Your task to perform on an android device: When is my next meeting? Image 0: 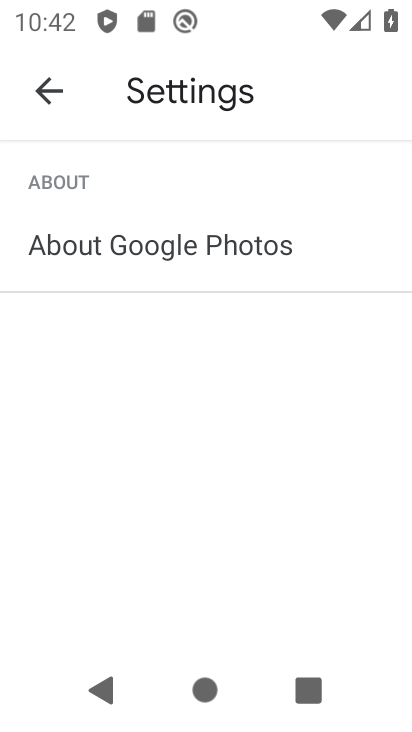
Step 0: press home button
Your task to perform on an android device: When is my next meeting? Image 1: 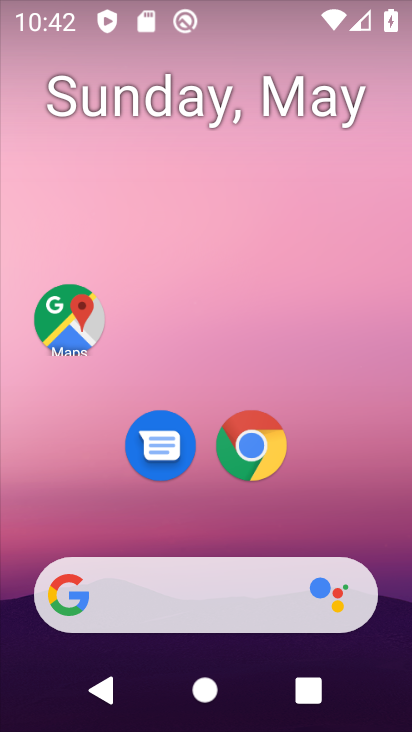
Step 1: drag from (167, 517) to (228, 90)
Your task to perform on an android device: When is my next meeting? Image 2: 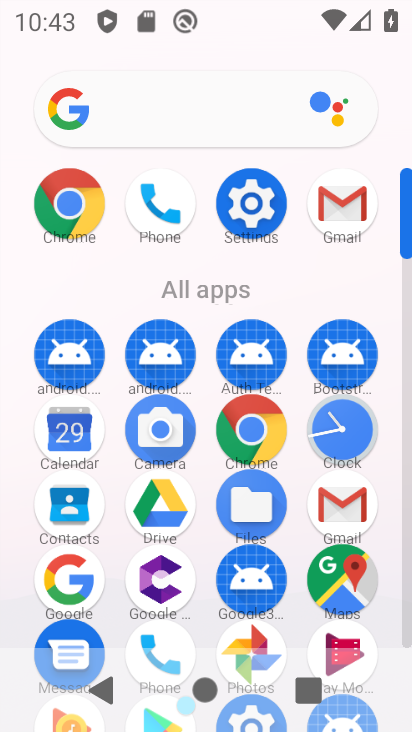
Step 2: click (81, 447)
Your task to perform on an android device: When is my next meeting? Image 3: 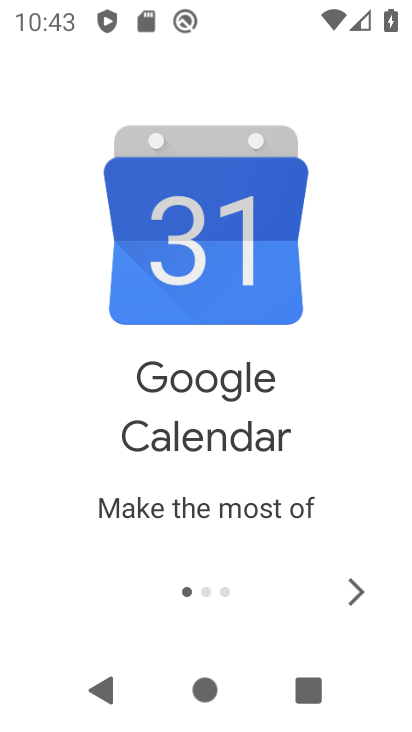
Step 3: click (356, 591)
Your task to perform on an android device: When is my next meeting? Image 4: 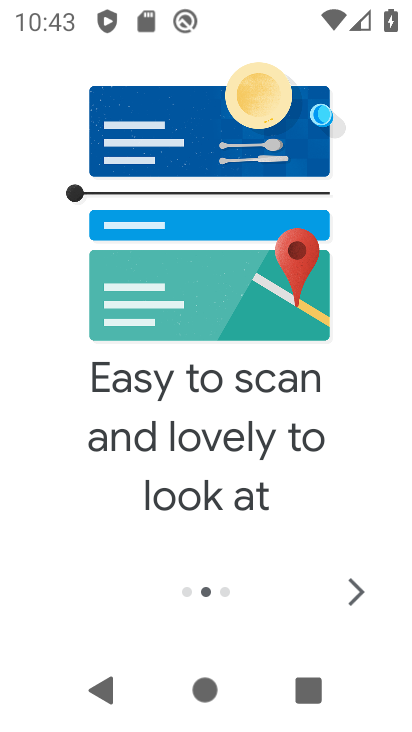
Step 4: click (354, 592)
Your task to perform on an android device: When is my next meeting? Image 5: 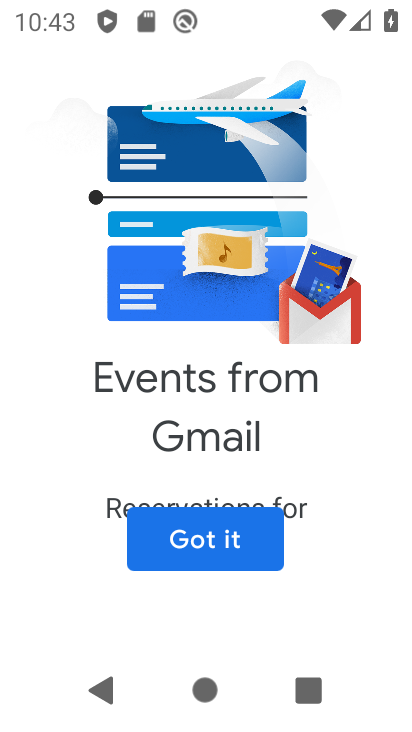
Step 5: click (241, 543)
Your task to perform on an android device: When is my next meeting? Image 6: 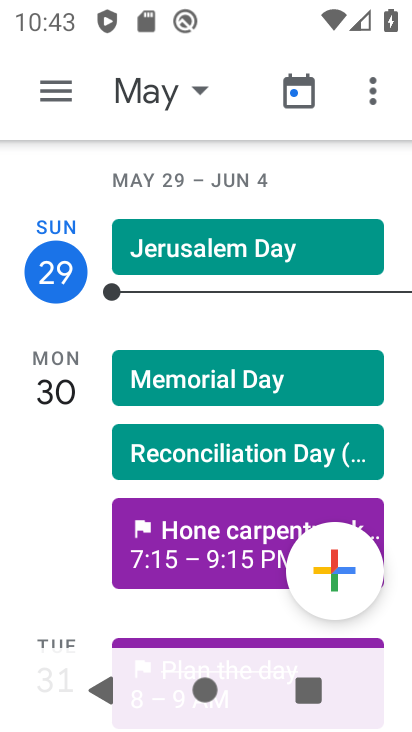
Step 6: drag from (213, 600) to (293, 62)
Your task to perform on an android device: When is my next meeting? Image 7: 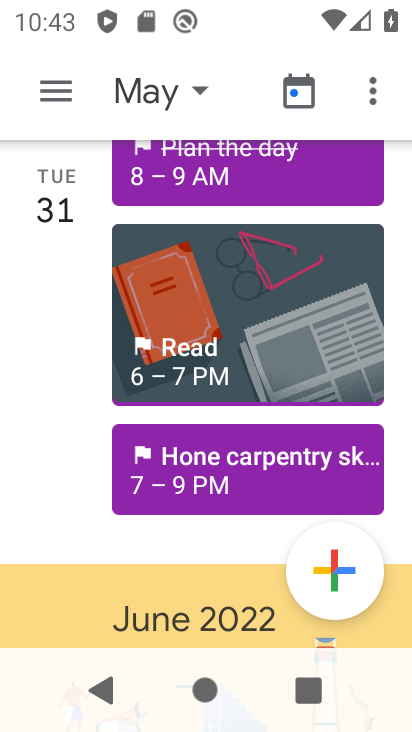
Step 7: drag from (199, 523) to (253, 102)
Your task to perform on an android device: When is my next meeting? Image 8: 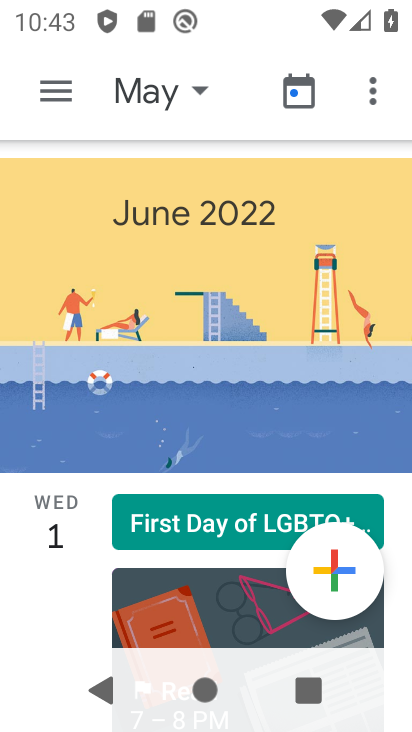
Step 8: drag from (165, 596) to (244, 109)
Your task to perform on an android device: When is my next meeting? Image 9: 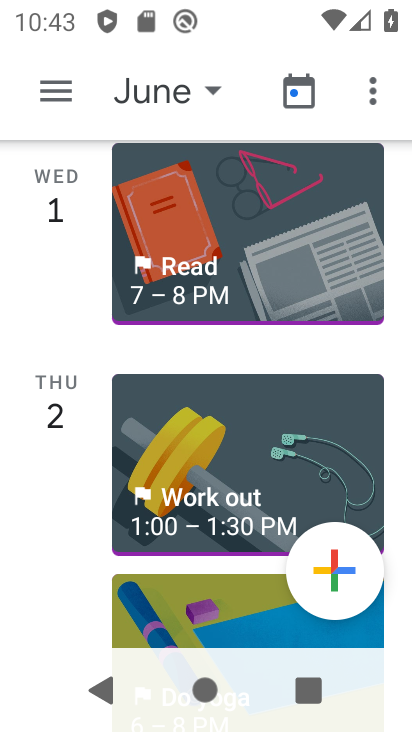
Step 9: drag from (169, 592) to (239, 108)
Your task to perform on an android device: When is my next meeting? Image 10: 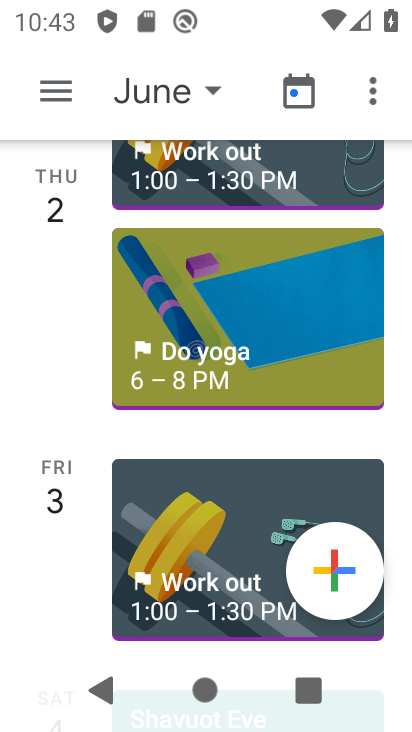
Step 10: drag from (197, 568) to (315, 110)
Your task to perform on an android device: When is my next meeting? Image 11: 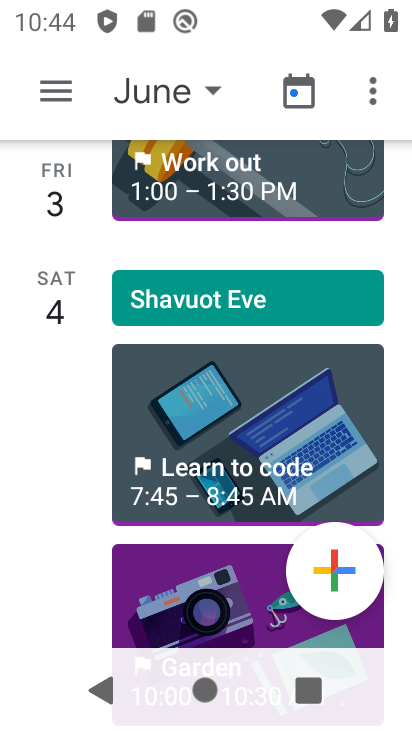
Step 11: drag from (249, 552) to (296, 126)
Your task to perform on an android device: When is my next meeting? Image 12: 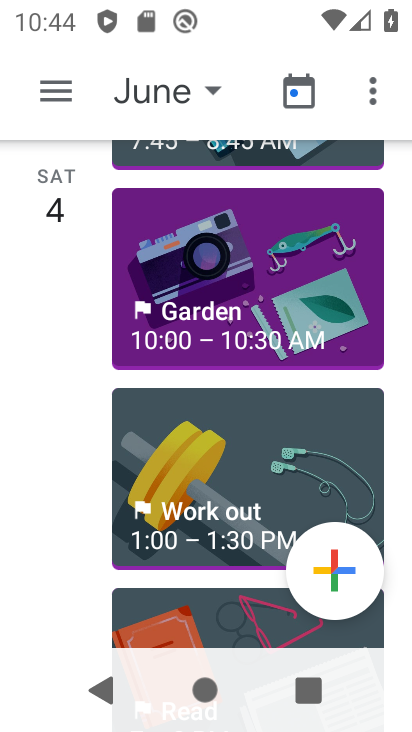
Step 12: drag from (195, 523) to (269, 52)
Your task to perform on an android device: When is my next meeting? Image 13: 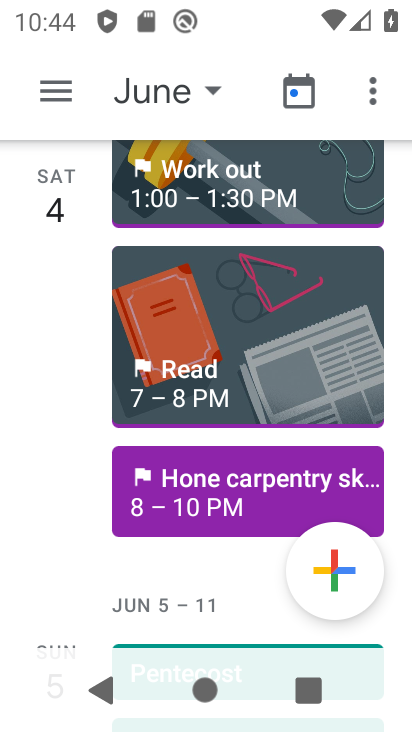
Step 13: drag from (168, 554) to (267, 78)
Your task to perform on an android device: When is my next meeting? Image 14: 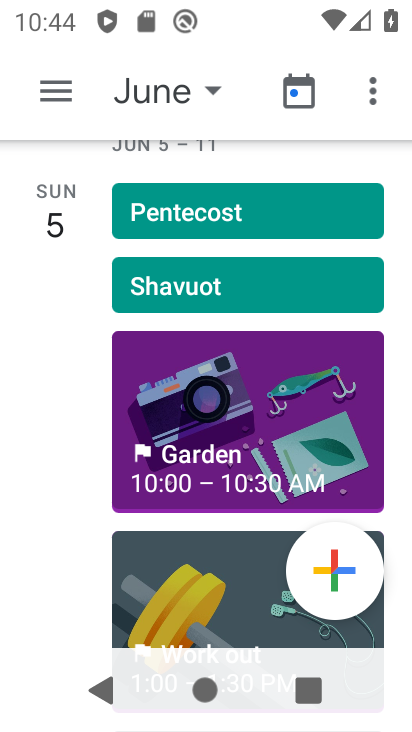
Step 14: drag from (171, 525) to (287, 100)
Your task to perform on an android device: When is my next meeting? Image 15: 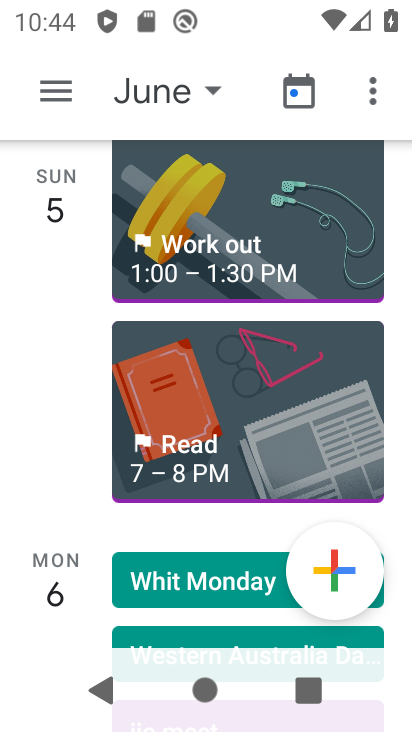
Step 15: drag from (168, 555) to (295, 174)
Your task to perform on an android device: When is my next meeting? Image 16: 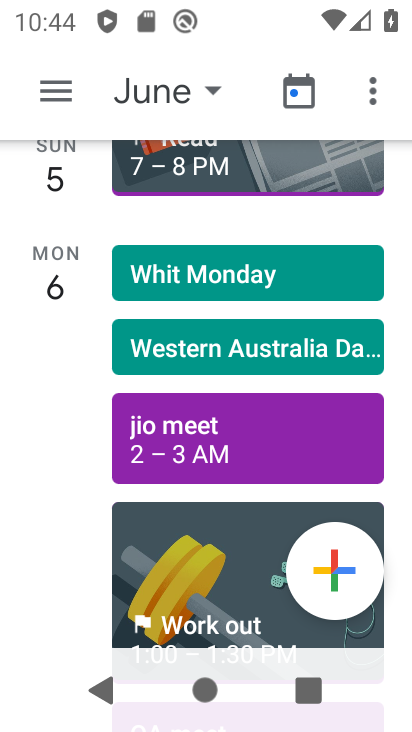
Step 16: click (245, 424)
Your task to perform on an android device: When is my next meeting? Image 17: 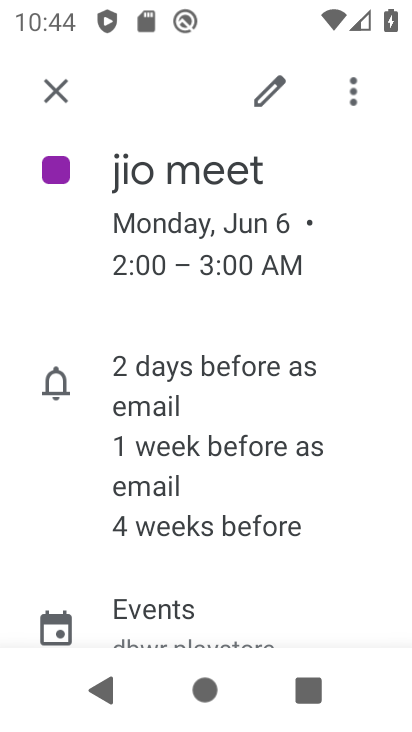
Step 17: task complete